Your task to perform on an android device: toggle location history Image 0: 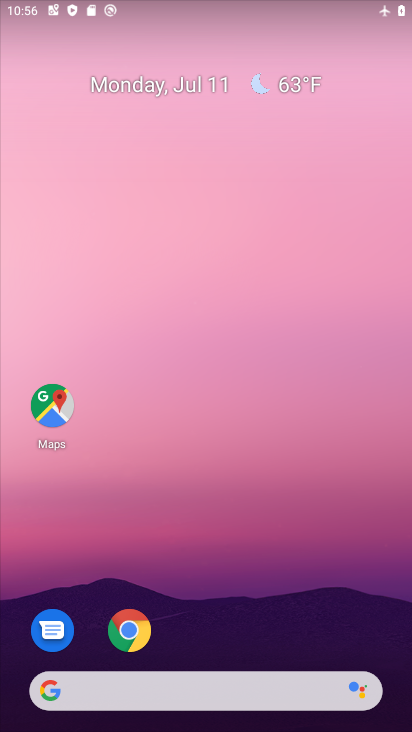
Step 0: click (57, 401)
Your task to perform on an android device: toggle location history Image 1: 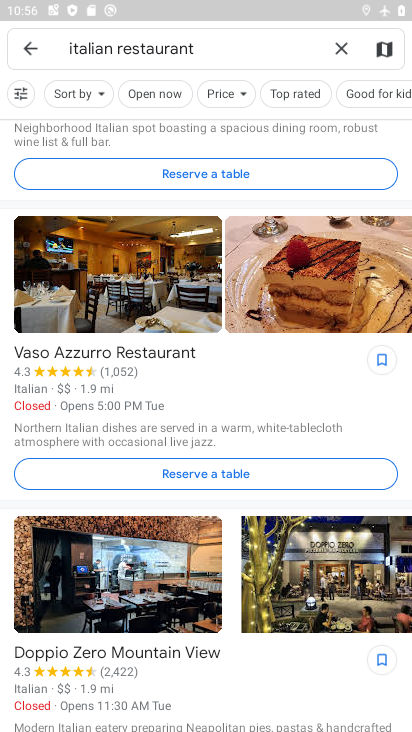
Step 1: click (338, 50)
Your task to perform on an android device: toggle location history Image 2: 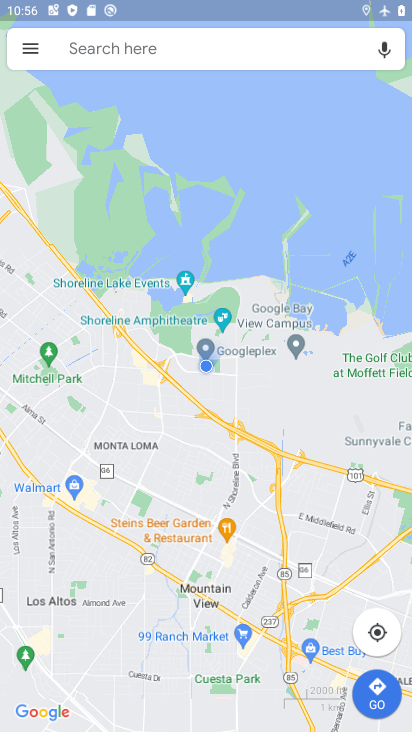
Step 2: click (33, 55)
Your task to perform on an android device: toggle location history Image 3: 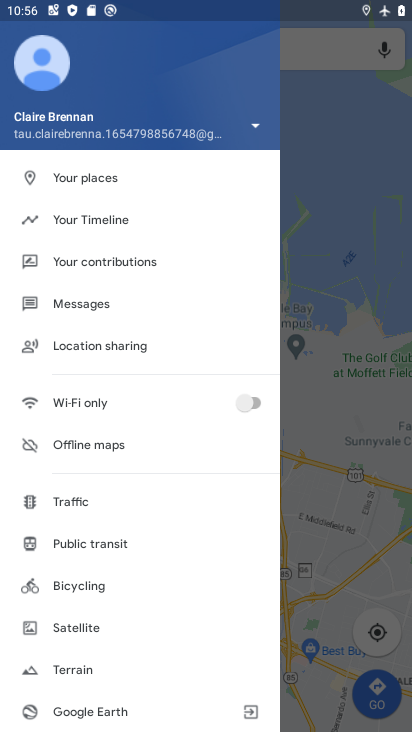
Step 3: drag from (186, 694) to (187, 343)
Your task to perform on an android device: toggle location history Image 4: 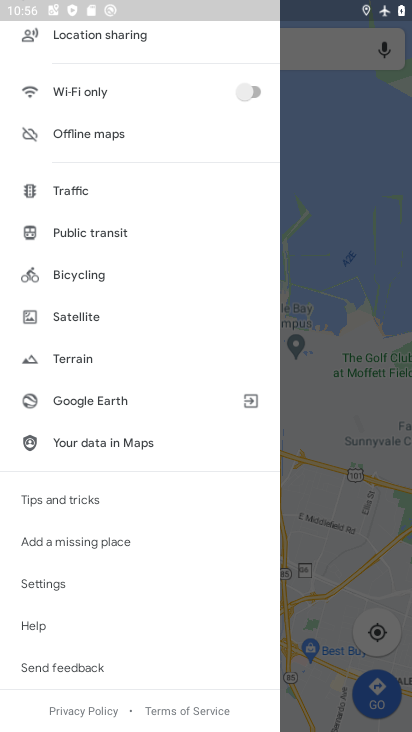
Step 4: click (44, 581)
Your task to perform on an android device: toggle location history Image 5: 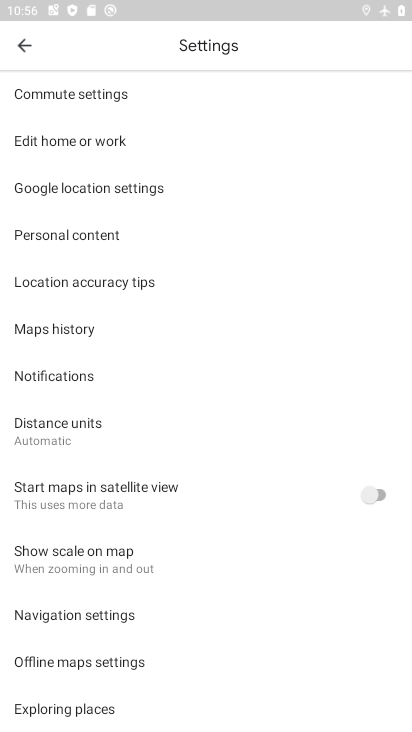
Step 5: click (53, 235)
Your task to perform on an android device: toggle location history Image 6: 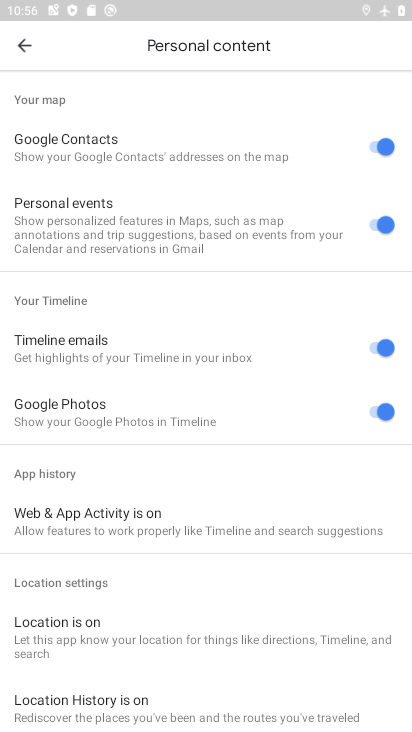
Step 6: drag from (148, 654) to (159, 370)
Your task to perform on an android device: toggle location history Image 7: 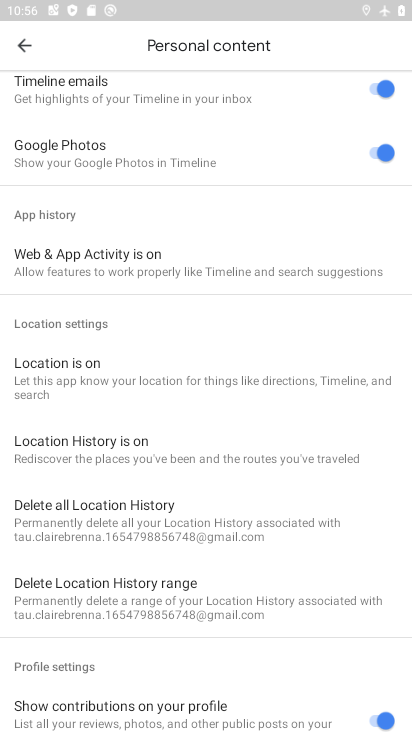
Step 7: click (80, 444)
Your task to perform on an android device: toggle location history Image 8: 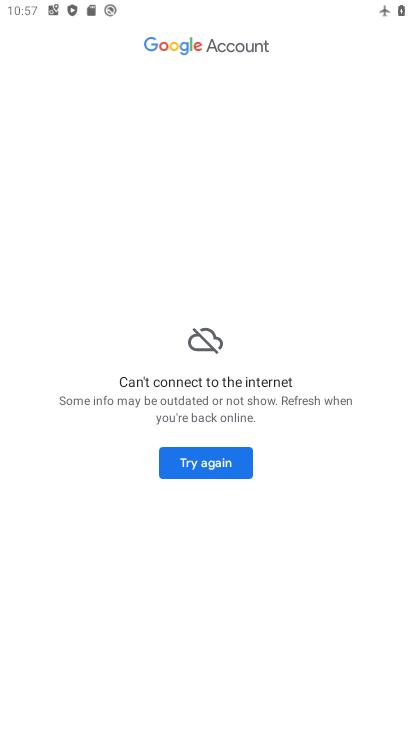
Step 8: click (188, 459)
Your task to perform on an android device: toggle location history Image 9: 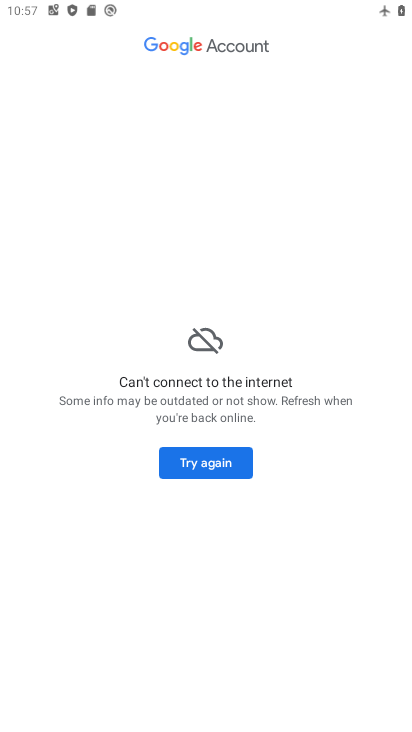
Step 9: task complete